Your task to perform on an android device: Open settings on Google Maps Image 0: 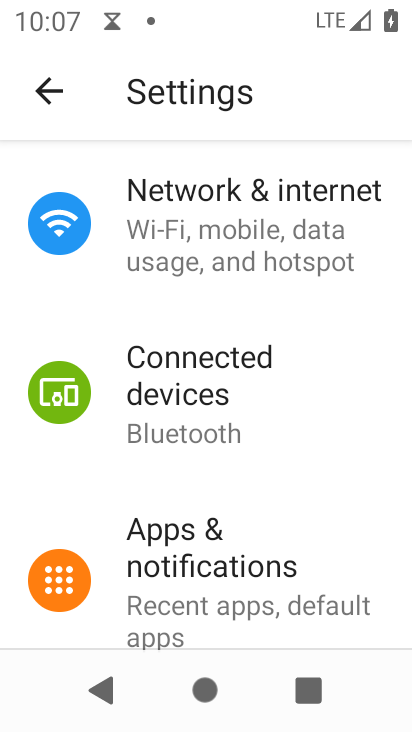
Step 0: press home button
Your task to perform on an android device: Open settings on Google Maps Image 1: 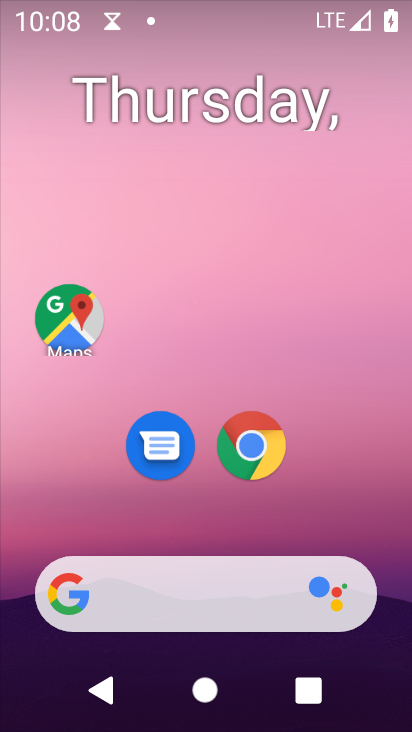
Step 1: click (83, 322)
Your task to perform on an android device: Open settings on Google Maps Image 2: 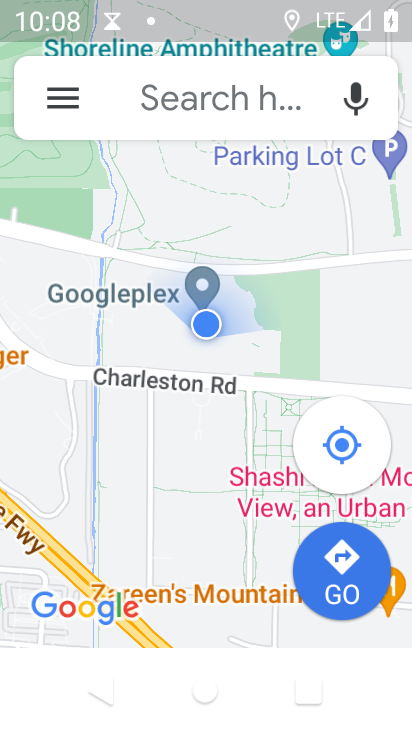
Step 2: click (70, 98)
Your task to perform on an android device: Open settings on Google Maps Image 3: 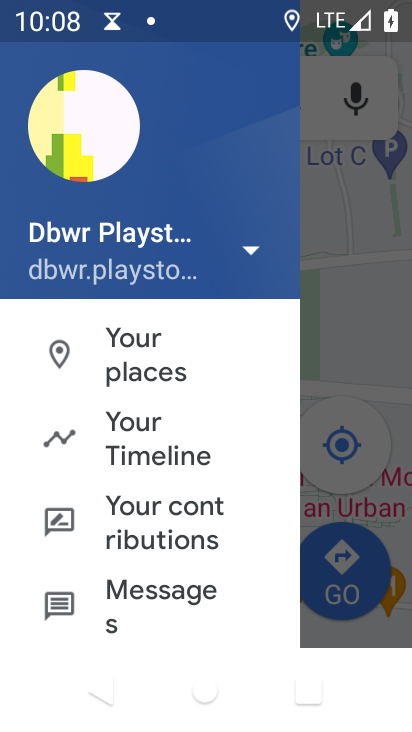
Step 3: drag from (155, 623) to (144, 296)
Your task to perform on an android device: Open settings on Google Maps Image 4: 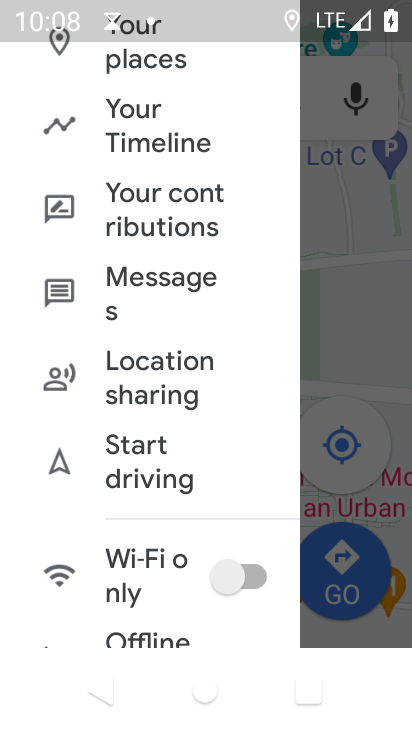
Step 4: drag from (158, 616) to (113, 282)
Your task to perform on an android device: Open settings on Google Maps Image 5: 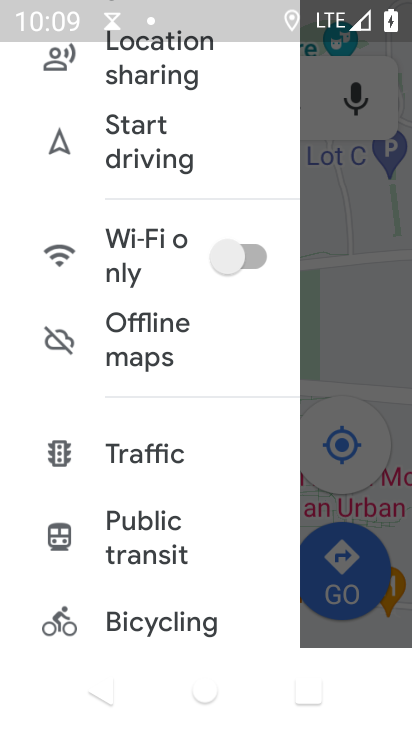
Step 5: drag from (160, 590) to (126, 228)
Your task to perform on an android device: Open settings on Google Maps Image 6: 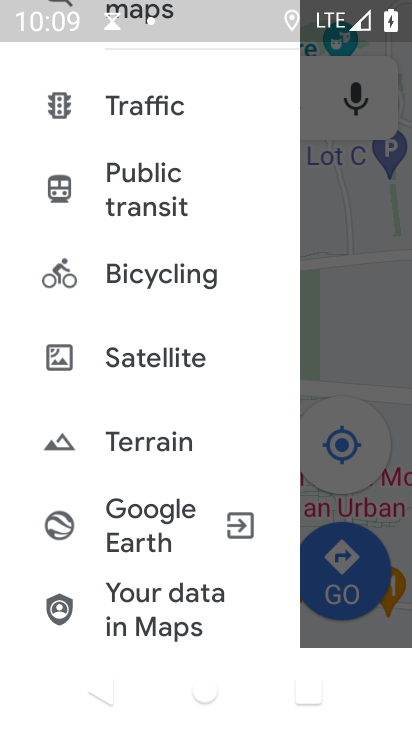
Step 6: drag from (145, 562) to (120, 236)
Your task to perform on an android device: Open settings on Google Maps Image 7: 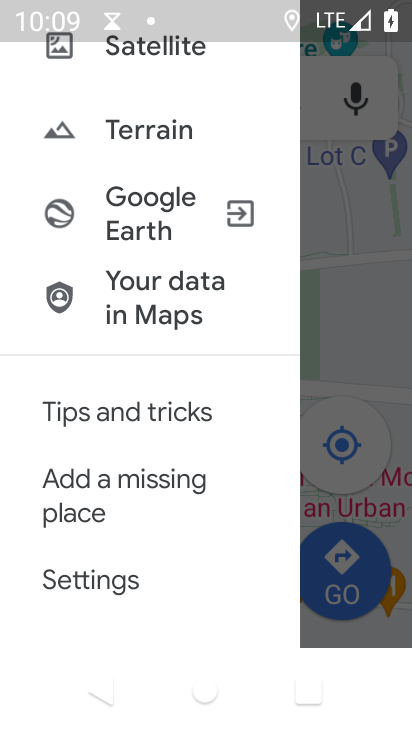
Step 7: drag from (125, 532) to (99, 230)
Your task to perform on an android device: Open settings on Google Maps Image 8: 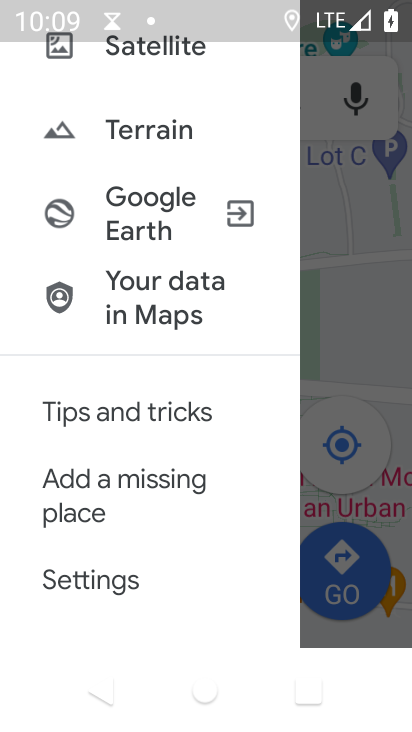
Step 8: click (112, 579)
Your task to perform on an android device: Open settings on Google Maps Image 9: 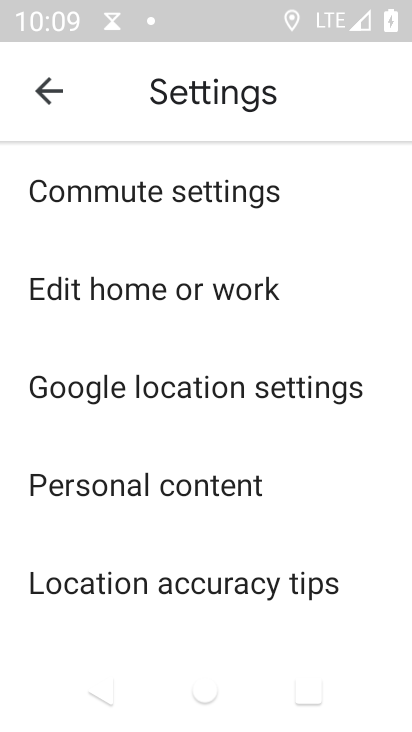
Step 9: task complete